Your task to perform on an android device: Open Yahoo.com Image 0: 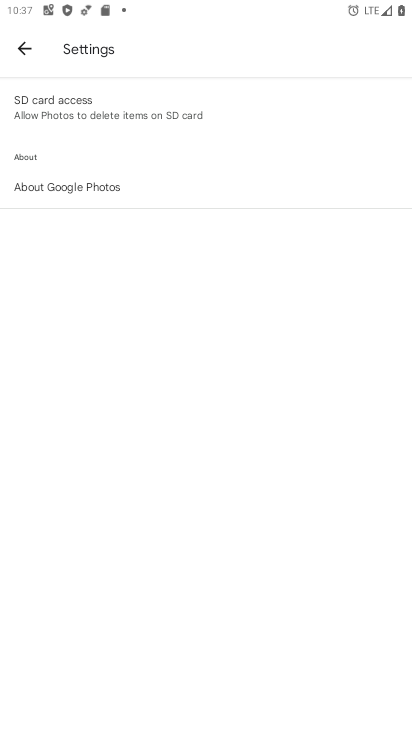
Step 0: press home button
Your task to perform on an android device: Open Yahoo.com Image 1: 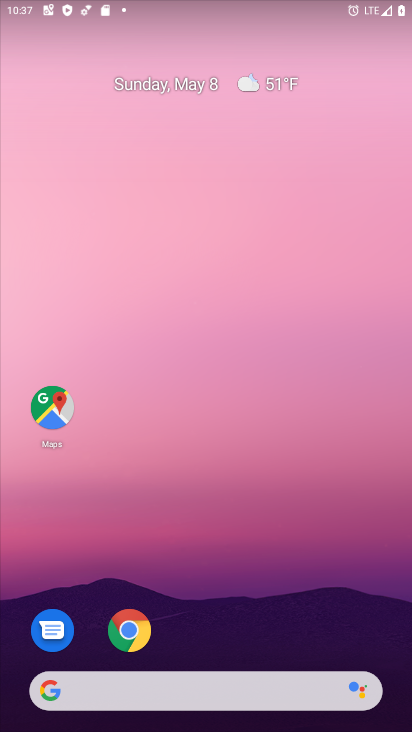
Step 1: drag from (377, 527) to (303, 137)
Your task to perform on an android device: Open Yahoo.com Image 2: 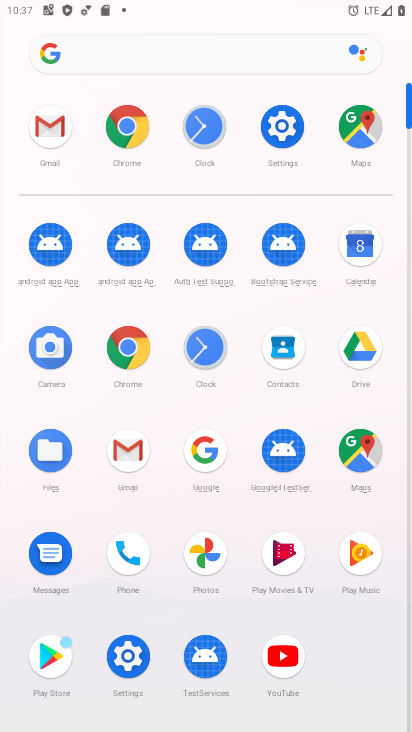
Step 2: click (127, 336)
Your task to perform on an android device: Open Yahoo.com Image 3: 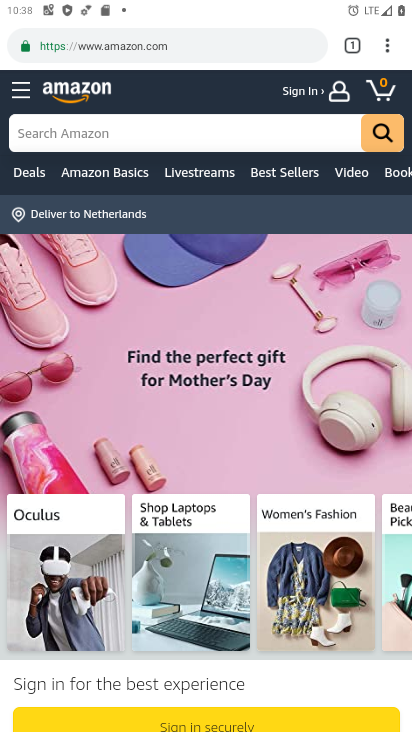
Step 3: press back button
Your task to perform on an android device: Open Yahoo.com Image 4: 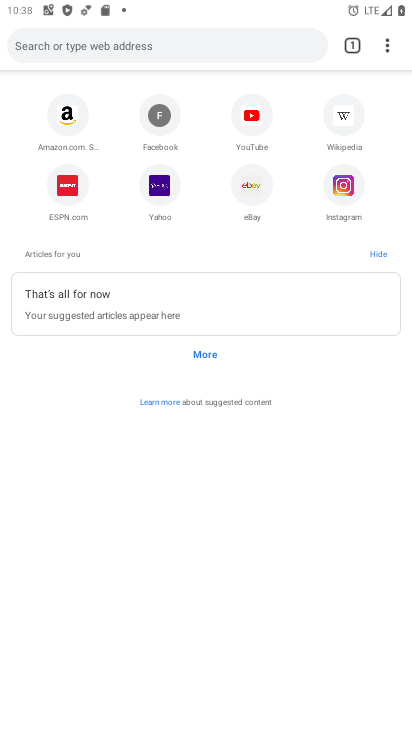
Step 4: click (154, 182)
Your task to perform on an android device: Open Yahoo.com Image 5: 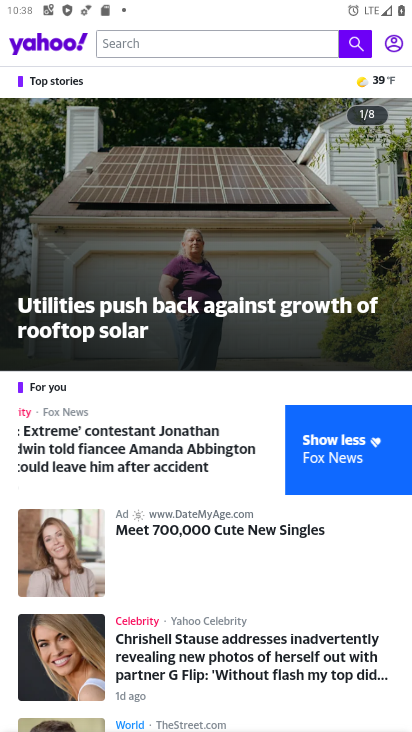
Step 5: task complete